Your task to perform on an android device: Show me popular videos on Youtube Image 0: 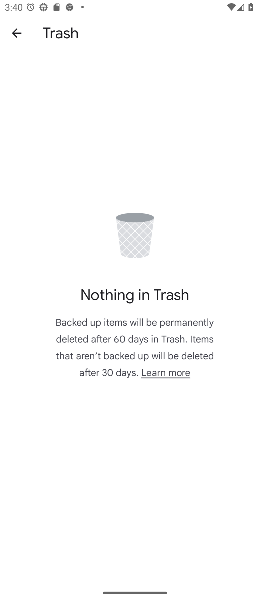
Step 0: press home button
Your task to perform on an android device: Show me popular videos on Youtube Image 1: 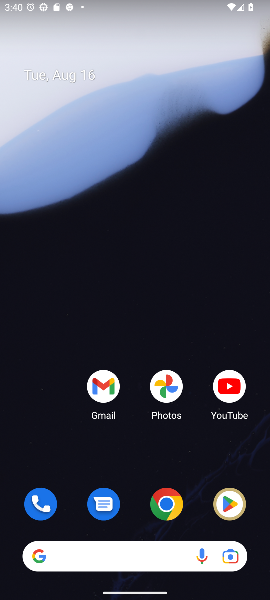
Step 1: click (228, 383)
Your task to perform on an android device: Show me popular videos on Youtube Image 2: 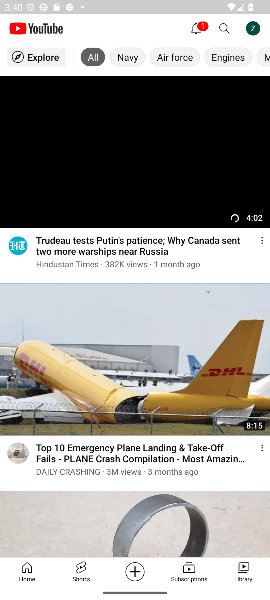
Step 2: click (76, 564)
Your task to perform on an android device: Show me popular videos on Youtube Image 3: 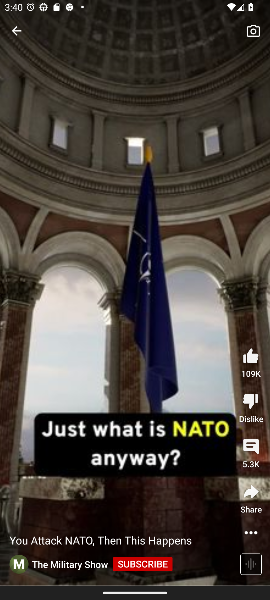
Step 3: task complete